Your task to perform on an android device: Go to calendar. Show me events next week Image 0: 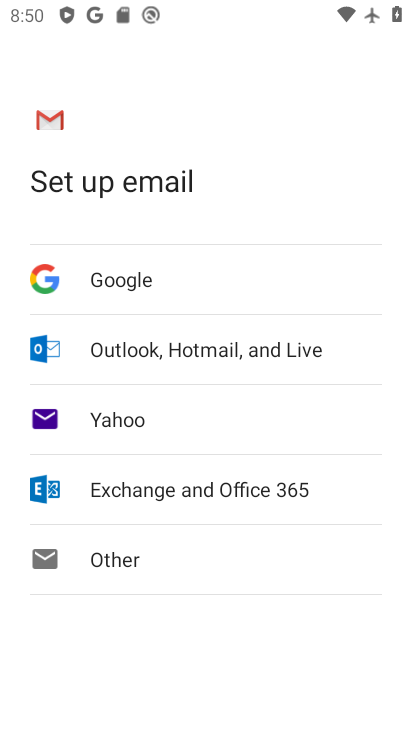
Step 0: press home button
Your task to perform on an android device: Go to calendar. Show me events next week Image 1: 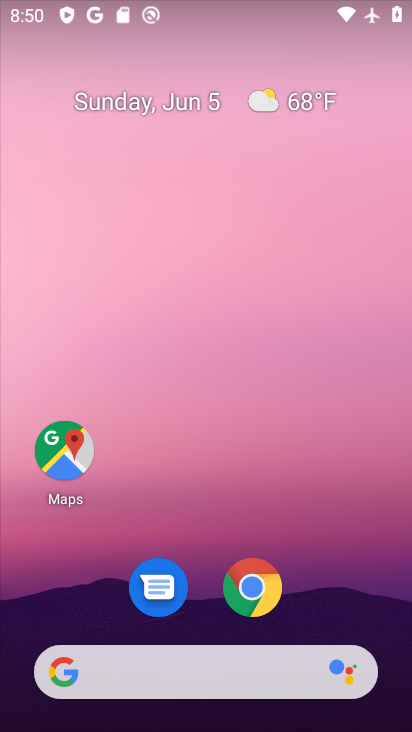
Step 1: drag from (366, 613) to (329, 106)
Your task to perform on an android device: Go to calendar. Show me events next week Image 2: 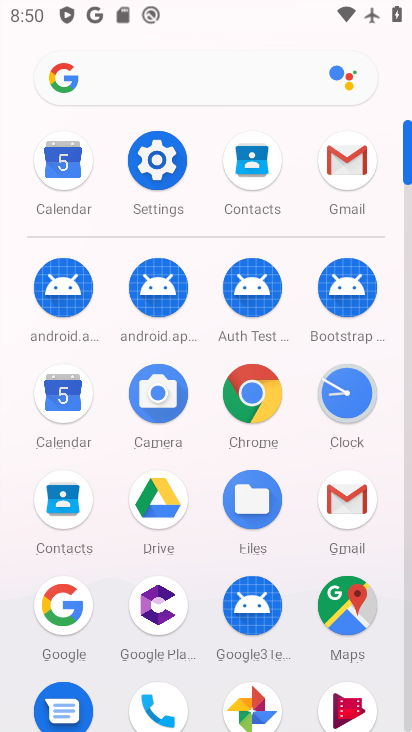
Step 2: click (63, 414)
Your task to perform on an android device: Go to calendar. Show me events next week Image 3: 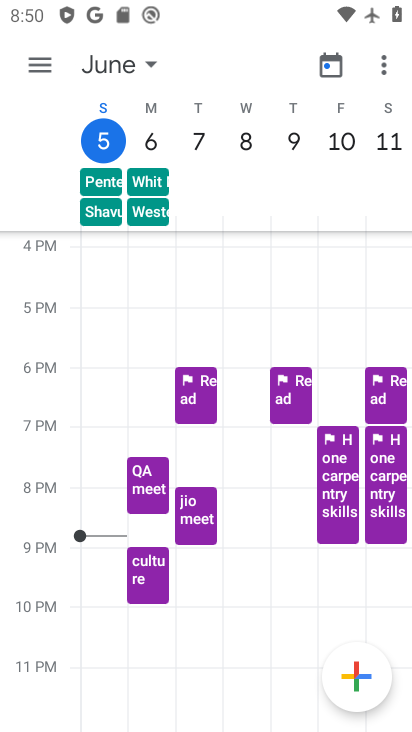
Step 3: click (34, 56)
Your task to perform on an android device: Go to calendar. Show me events next week Image 4: 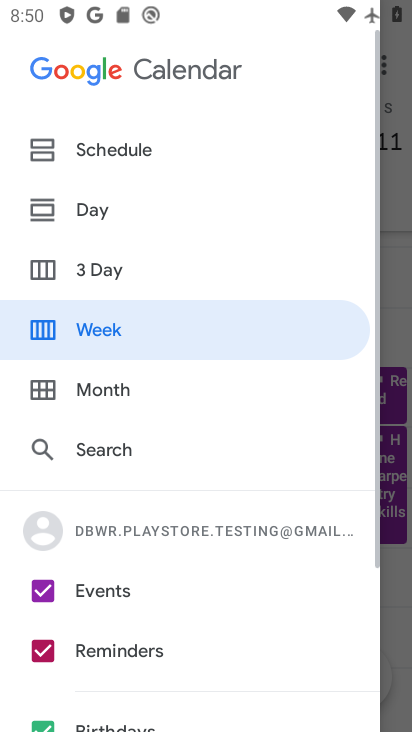
Step 4: click (397, 333)
Your task to perform on an android device: Go to calendar. Show me events next week Image 5: 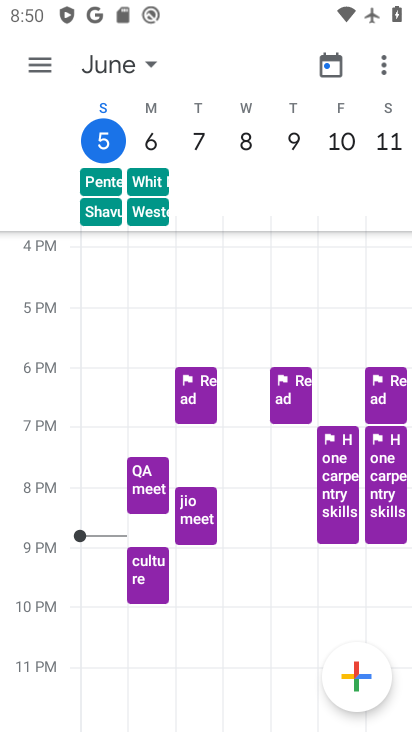
Step 5: click (146, 60)
Your task to perform on an android device: Go to calendar. Show me events next week Image 6: 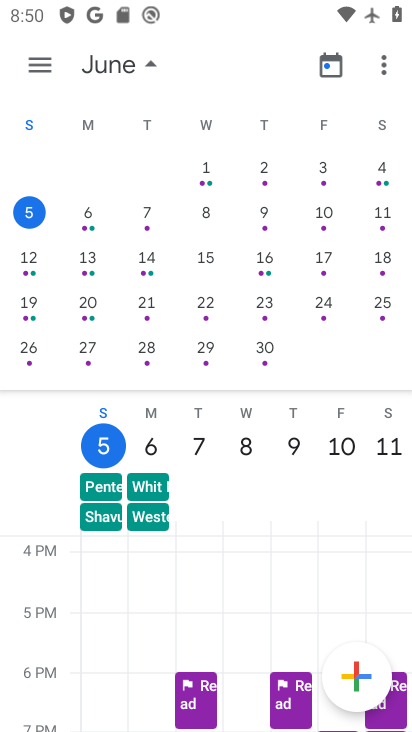
Step 6: click (83, 257)
Your task to perform on an android device: Go to calendar. Show me events next week Image 7: 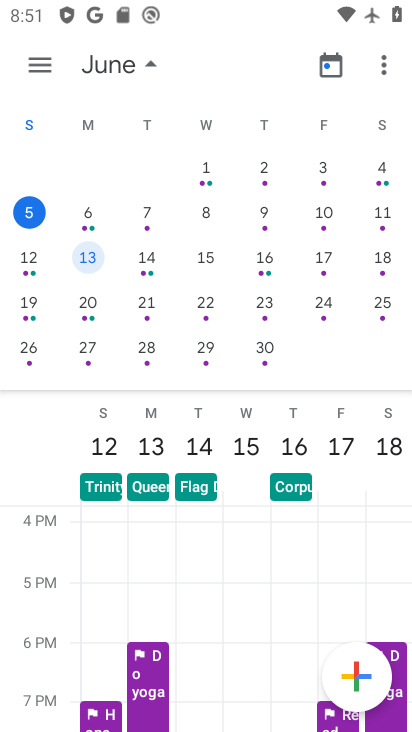
Step 7: task complete